Your task to perform on an android device: open device folders in google photos Image 0: 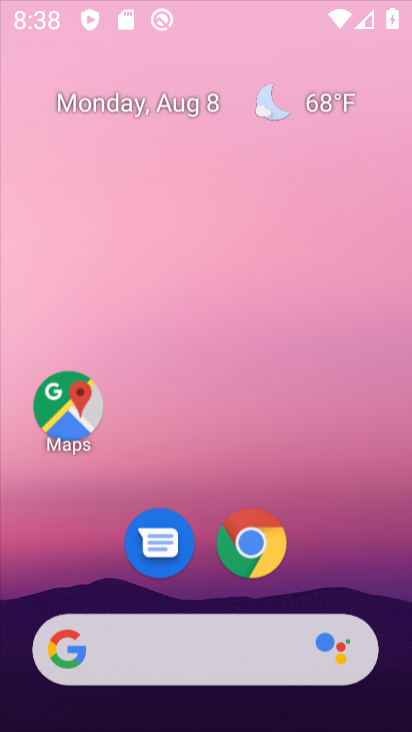
Step 0: press home button
Your task to perform on an android device: open device folders in google photos Image 1: 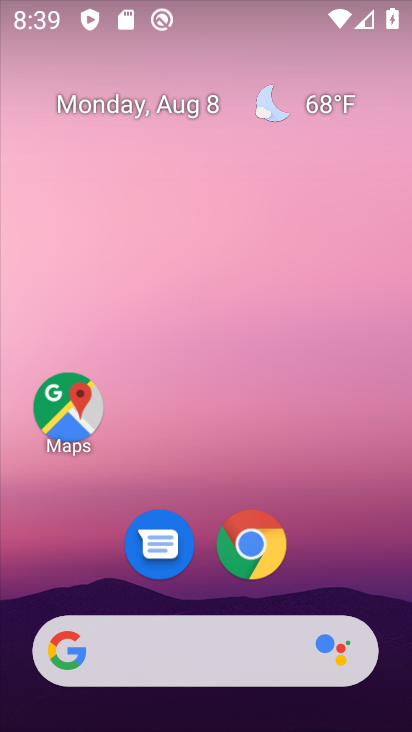
Step 1: click (248, 540)
Your task to perform on an android device: open device folders in google photos Image 2: 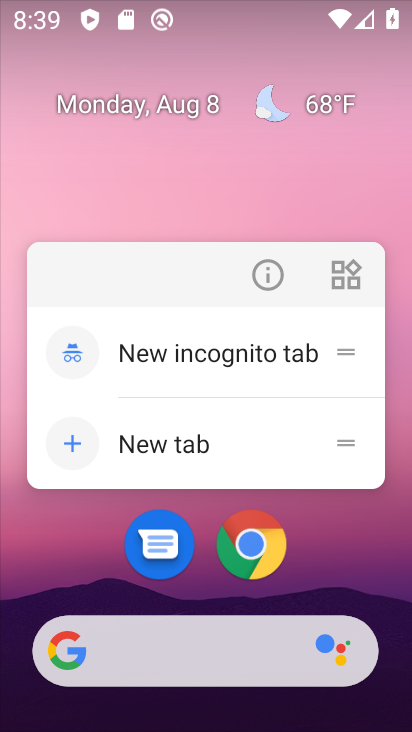
Step 2: click (330, 562)
Your task to perform on an android device: open device folders in google photos Image 3: 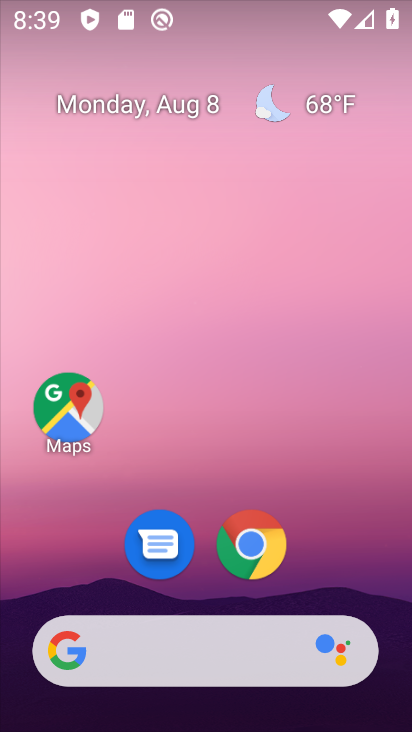
Step 3: drag from (335, 570) to (363, 0)
Your task to perform on an android device: open device folders in google photos Image 4: 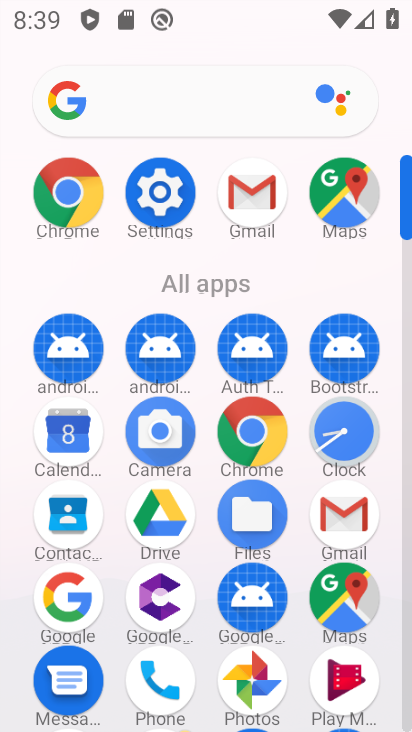
Step 4: click (248, 673)
Your task to perform on an android device: open device folders in google photos Image 5: 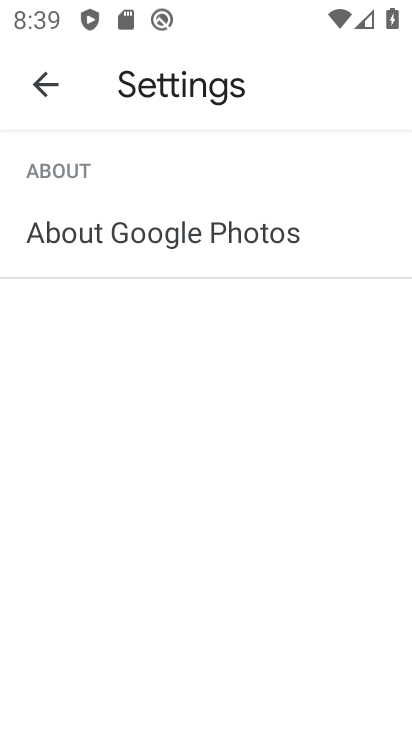
Step 5: click (41, 89)
Your task to perform on an android device: open device folders in google photos Image 6: 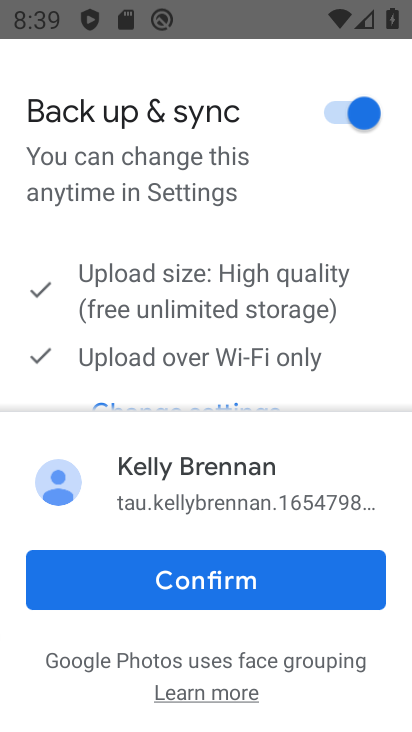
Step 6: click (210, 576)
Your task to perform on an android device: open device folders in google photos Image 7: 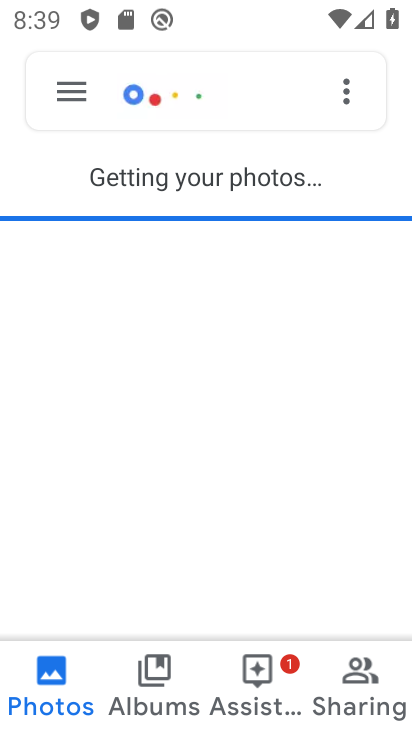
Step 7: click (69, 85)
Your task to perform on an android device: open device folders in google photos Image 8: 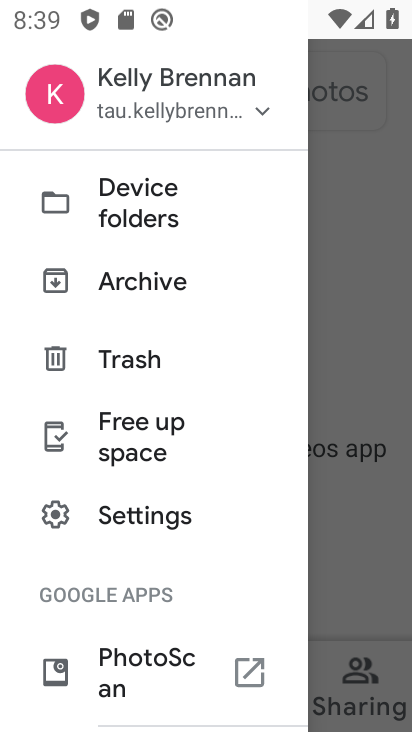
Step 8: click (83, 203)
Your task to perform on an android device: open device folders in google photos Image 9: 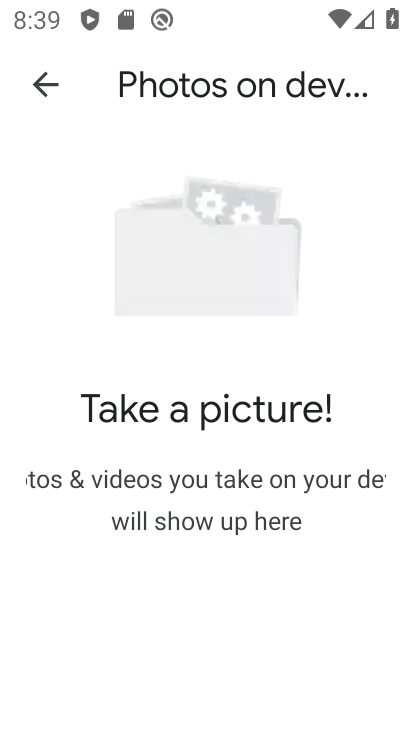
Step 9: task complete